Your task to perform on an android device: add a label to a message in the gmail app Image 0: 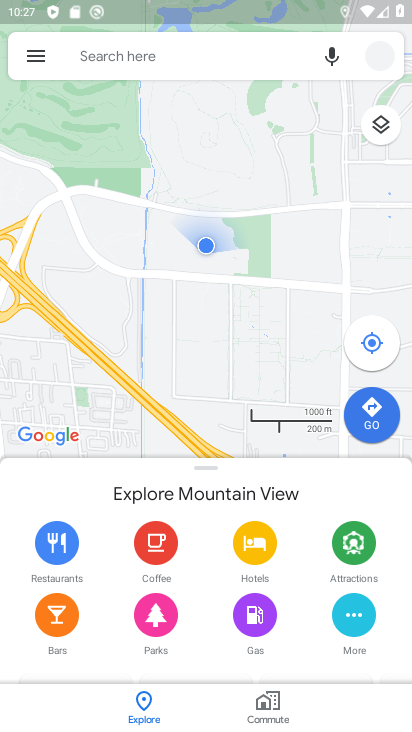
Step 0: press home button
Your task to perform on an android device: add a label to a message in the gmail app Image 1: 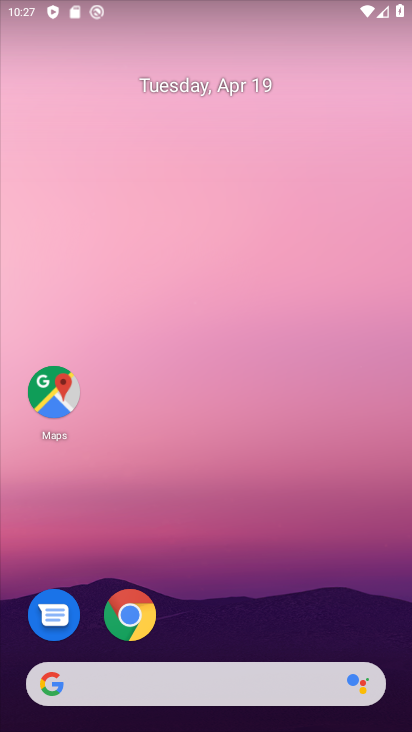
Step 1: drag from (251, 598) to (234, 84)
Your task to perform on an android device: add a label to a message in the gmail app Image 2: 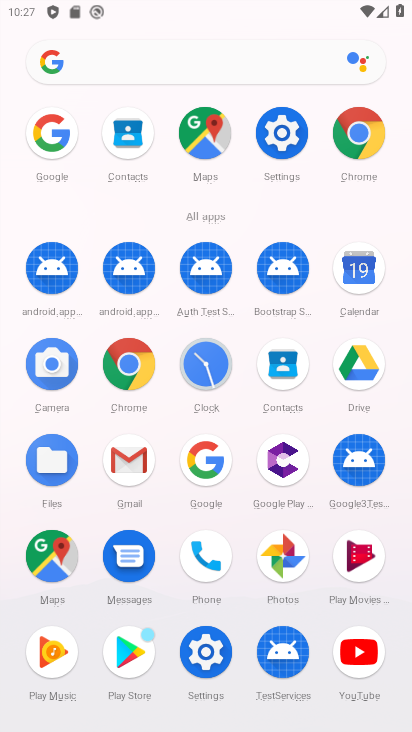
Step 2: click (128, 460)
Your task to perform on an android device: add a label to a message in the gmail app Image 3: 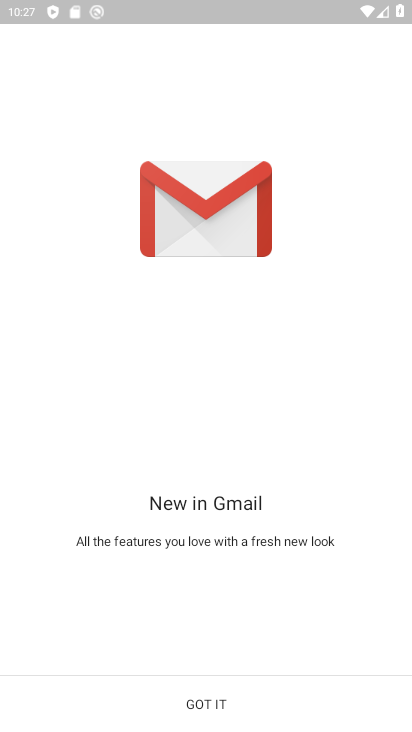
Step 3: click (213, 711)
Your task to perform on an android device: add a label to a message in the gmail app Image 4: 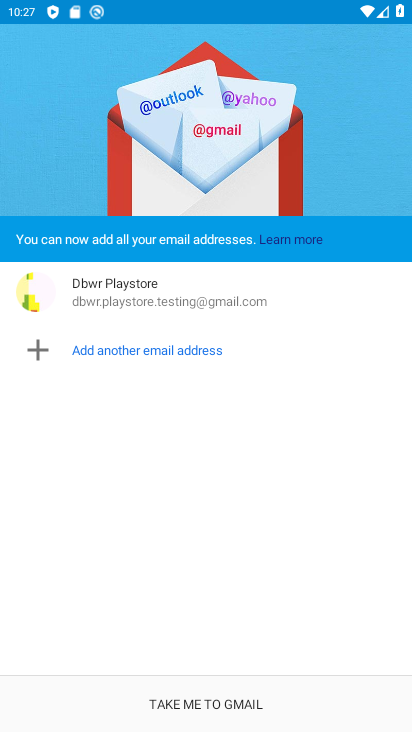
Step 4: click (207, 698)
Your task to perform on an android device: add a label to a message in the gmail app Image 5: 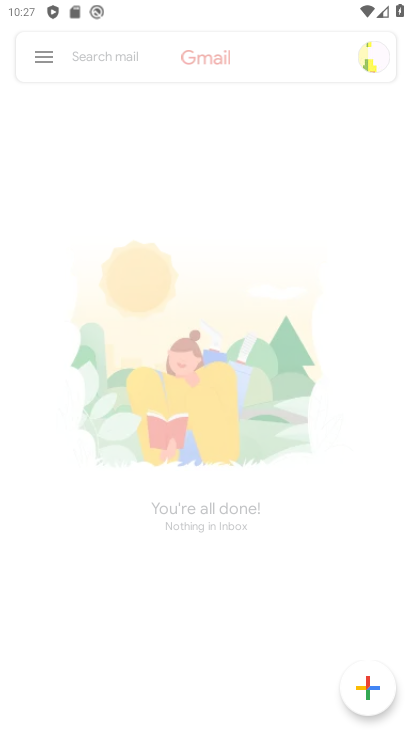
Step 5: click (41, 57)
Your task to perform on an android device: add a label to a message in the gmail app Image 6: 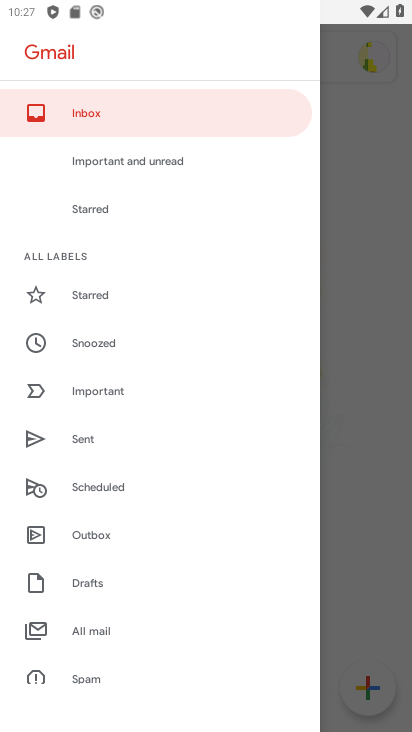
Step 6: click (111, 628)
Your task to perform on an android device: add a label to a message in the gmail app Image 7: 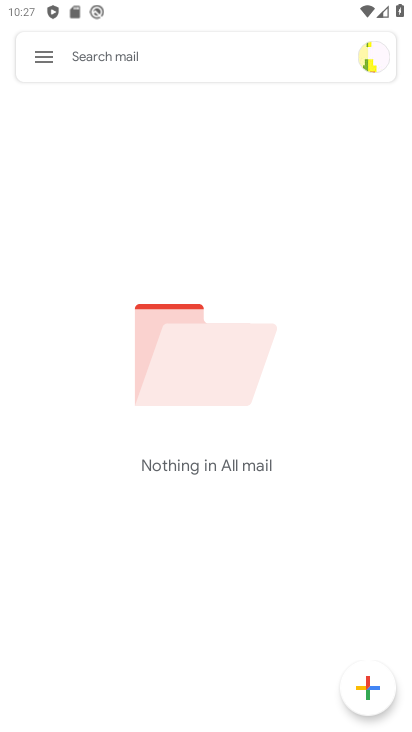
Step 7: task complete